Your task to perform on an android device: see creations saved in the google photos Image 0: 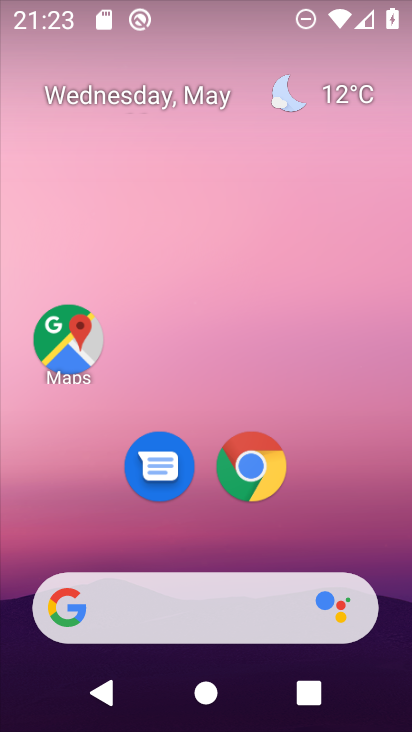
Step 0: press home button
Your task to perform on an android device: see creations saved in the google photos Image 1: 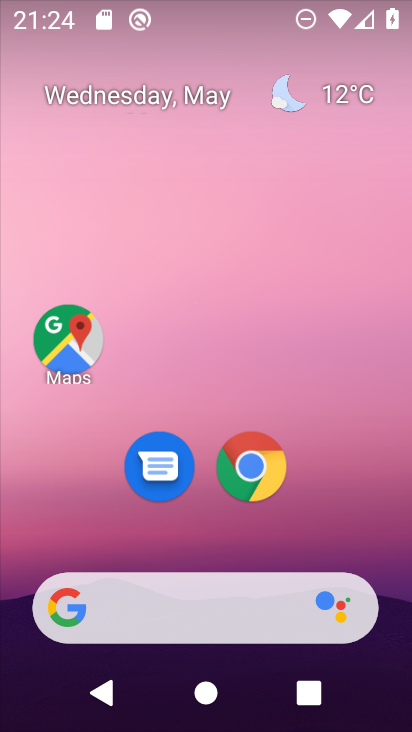
Step 1: drag from (201, 283) to (199, 87)
Your task to perform on an android device: see creations saved in the google photos Image 2: 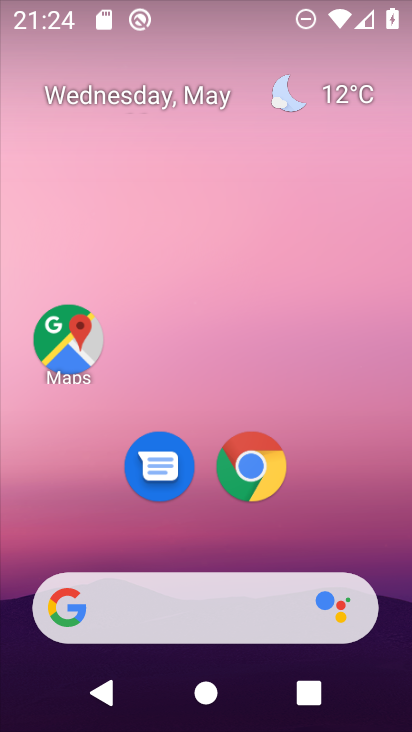
Step 2: drag from (213, 549) to (202, 65)
Your task to perform on an android device: see creations saved in the google photos Image 3: 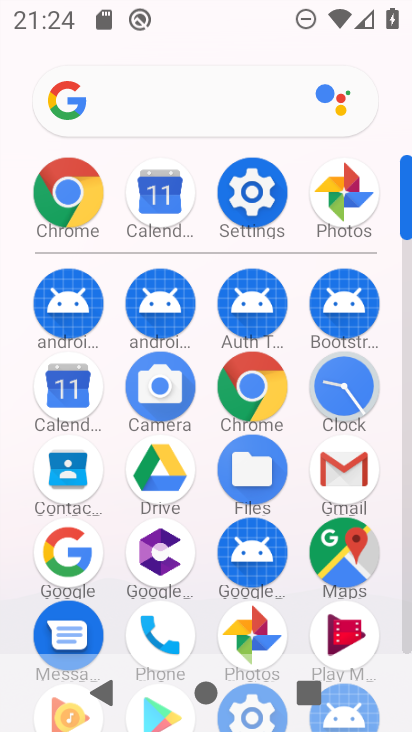
Step 3: click (338, 194)
Your task to perform on an android device: see creations saved in the google photos Image 4: 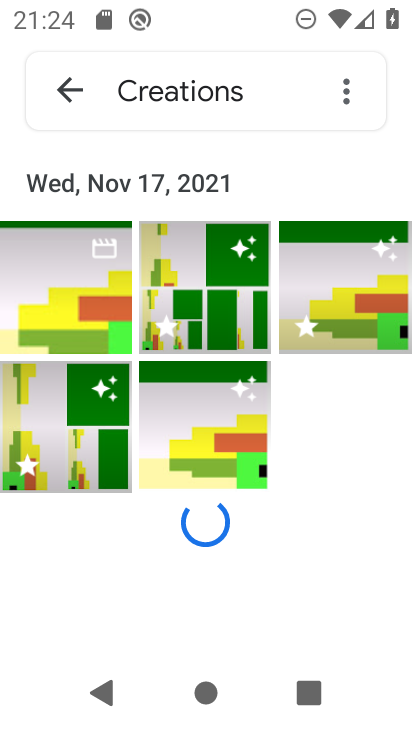
Step 4: task complete